Your task to perform on an android device: Go to privacy settings Image 0: 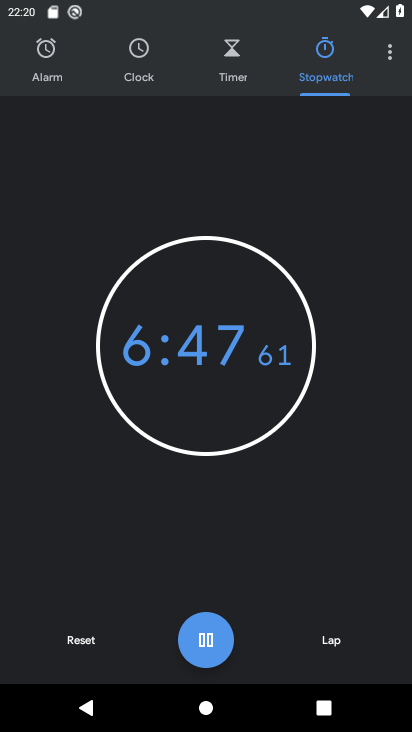
Step 0: click (68, 633)
Your task to perform on an android device: Go to privacy settings Image 1: 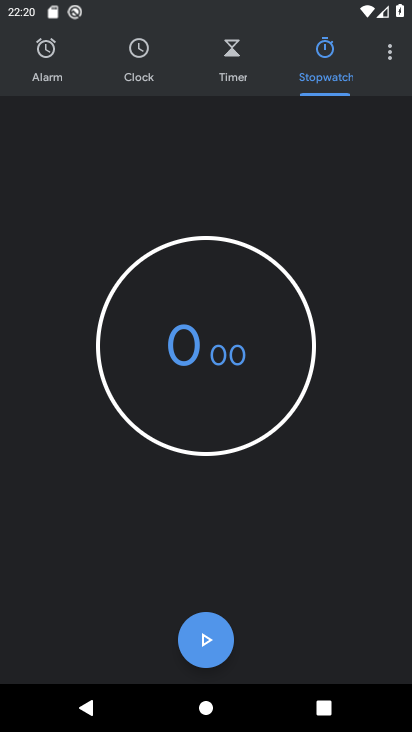
Step 1: press home button
Your task to perform on an android device: Go to privacy settings Image 2: 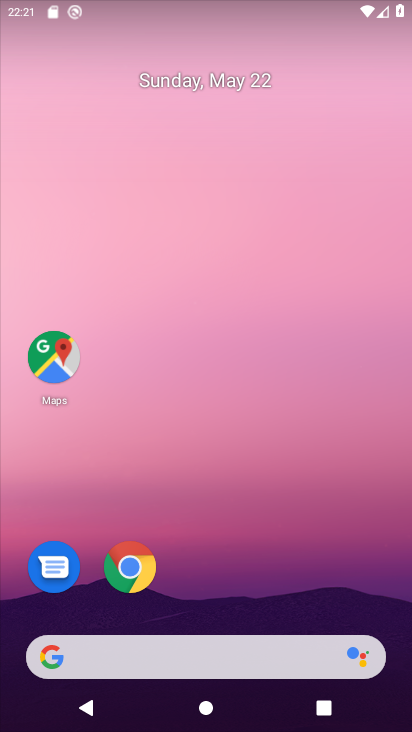
Step 2: drag from (256, 566) to (290, 12)
Your task to perform on an android device: Go to privacy settings Image 3: 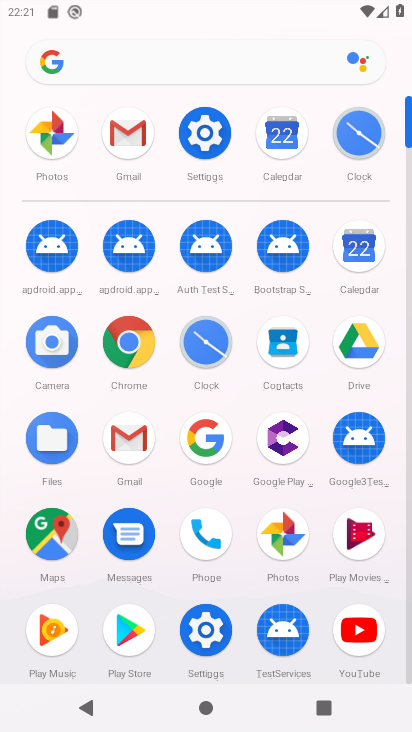
Step 3: click (210, 123)
Your task to perform on an android device: Go to privacy settings Image 4: 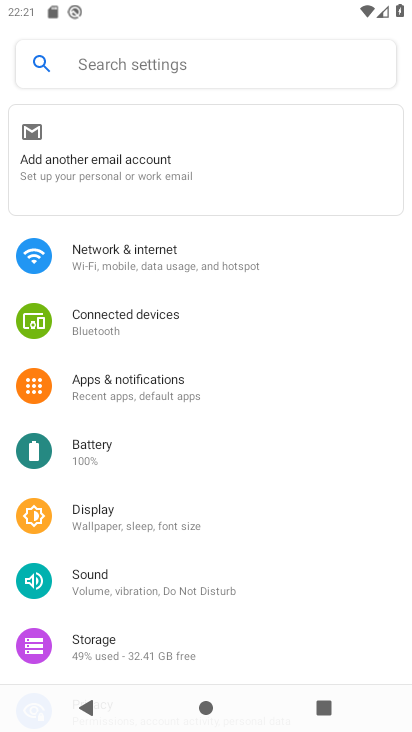
Step 4: drag from (138, 614) to (179, 168)
Your task to perform on an android device: Go to privacy settings Image 5: 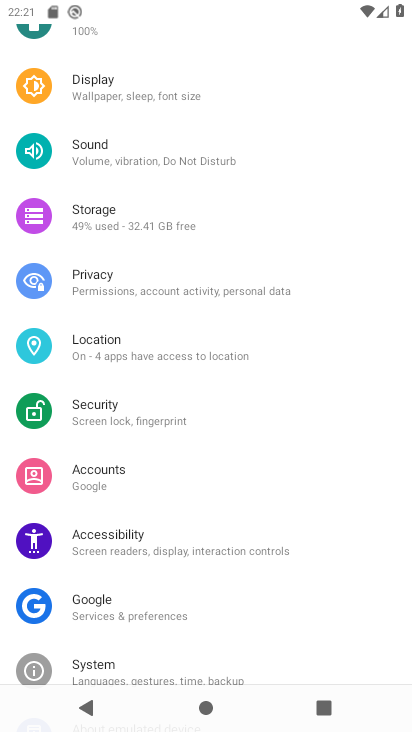
Step 5: click (116, 274)
Your task to perform on an android device: Go to privacy settings Image 6: 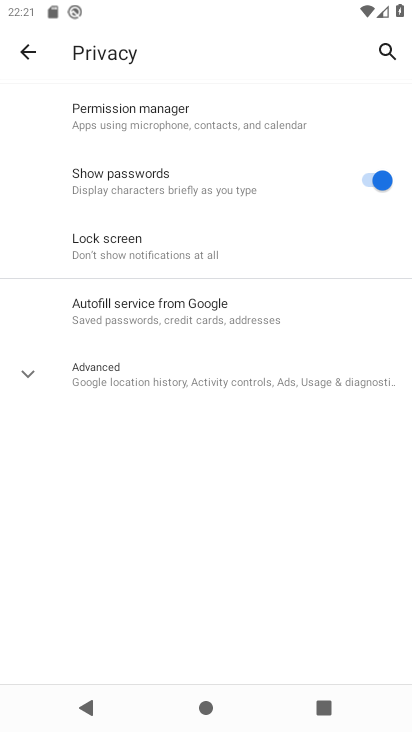
Step 6: click (27, 365)
Your task to perform on an android device: Go to privacy settings Image 7: 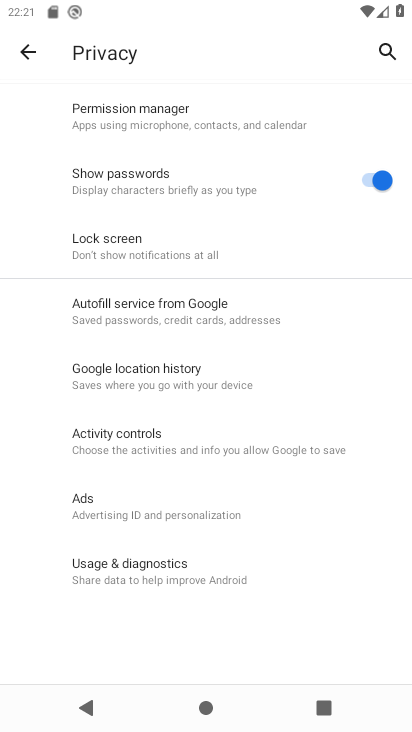
Step 7: task complete